Your task to perform on an android device: Open settings Image 0: 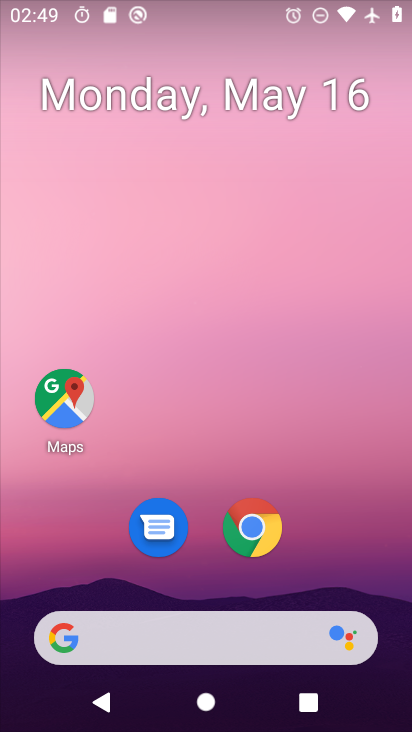
Step 0: press home button
Your task to perform on an android device: Open settings Image 1: 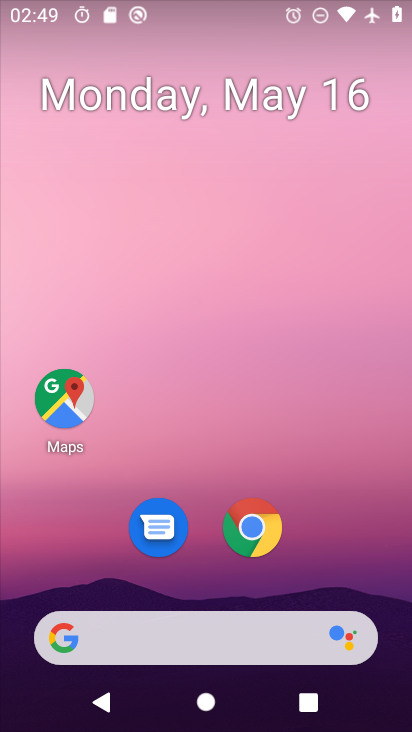
Step 1: drag from (147, 642) to (317, 204)
Your task to perform on an android device: Open settings Image 2: 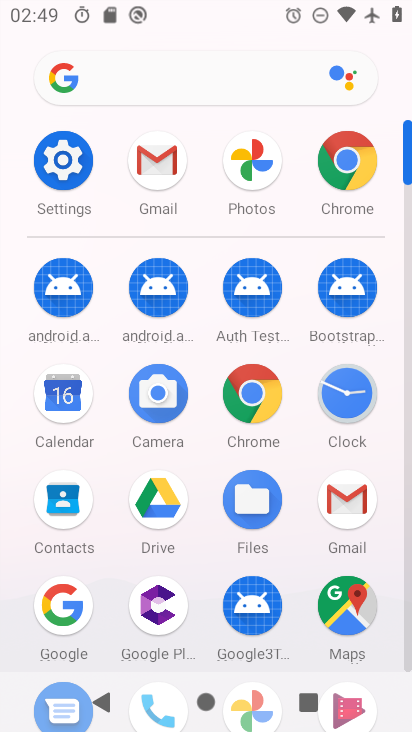
Step 2: click (70, 172)
Your task to perform on an android device: Open settings Image 3: 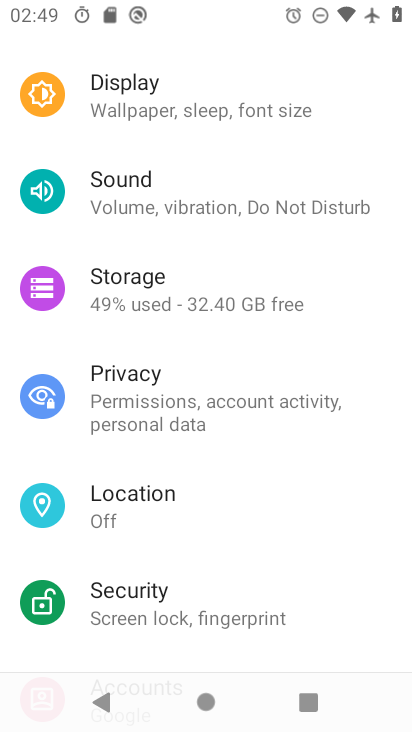
Step 3: task complete